Your task to perform on an android device: snooze an email in the gmail app Image 0: 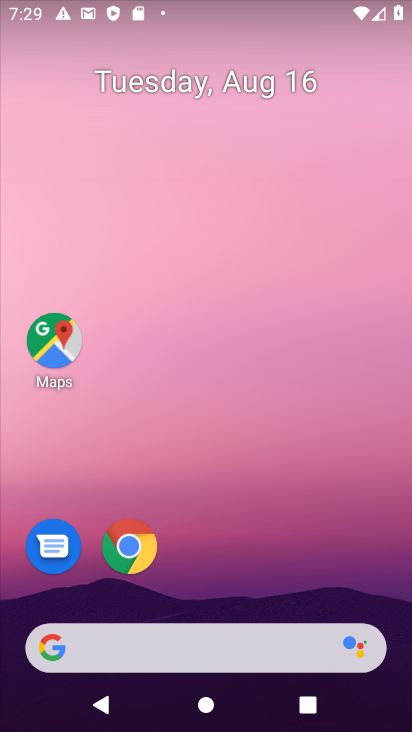
Step 0: drag from (248, 548) to (241, 0)
Your task to perform on an android device: snooze an email in the gmail app Image 1: 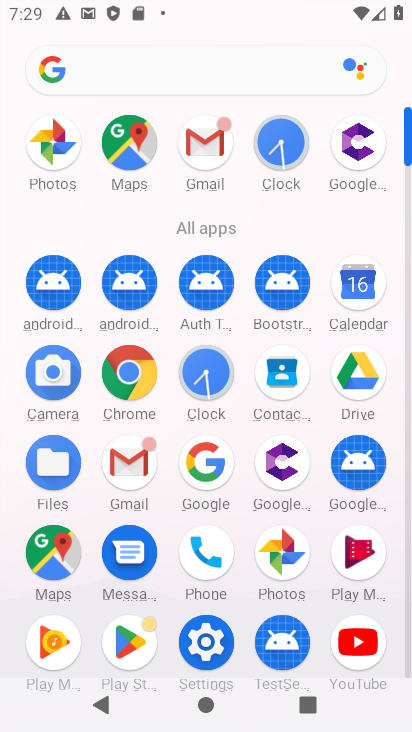
Step 1: click (206, 144)
Your task to perform on an android device: snooze an email in the gmail app Image 2: 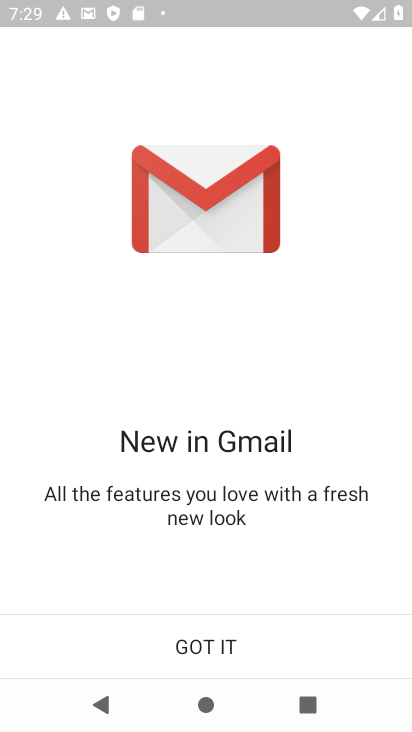
Step 2: click (256, 639)
Your task to perform on an android device: snooze an email in the gmail app Image 3: 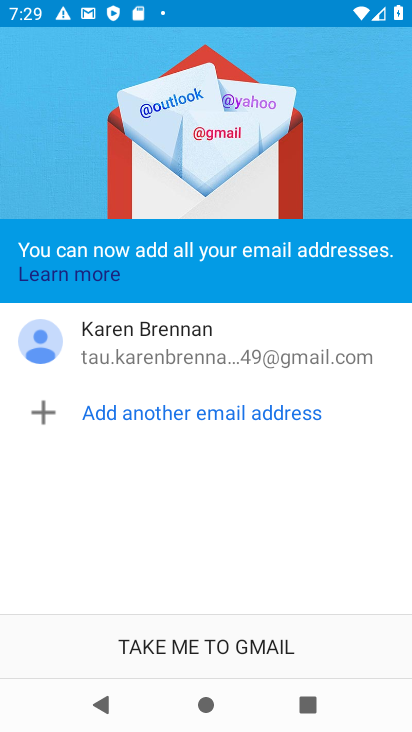
Step 3: click (256, 640)
Your task to perform on an android device: snooze an email in the gmail app Image 4: 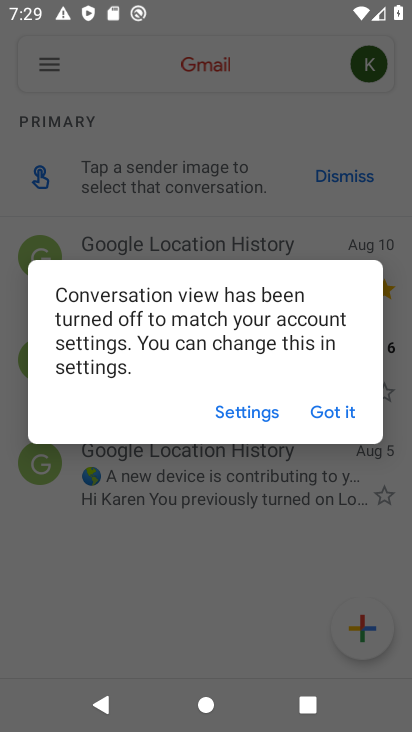
Step 4: click (340, 410)
Your task to perform on an android device: snooze an email in the gmail app Image 5: 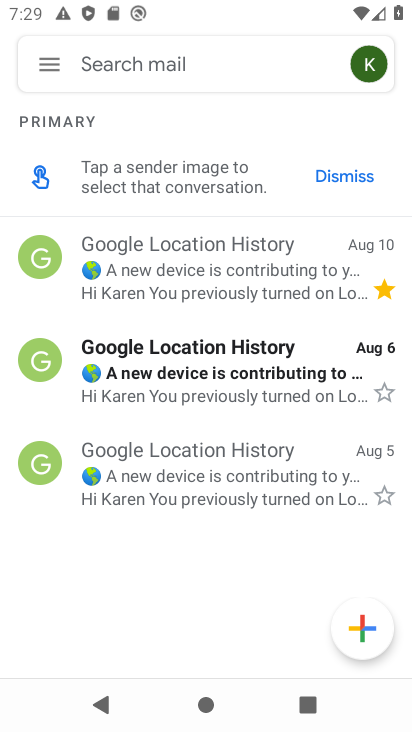
Step 5: click (236, 264)
Your task to perform on an android device: snooze an email in the gmail app Image 6: 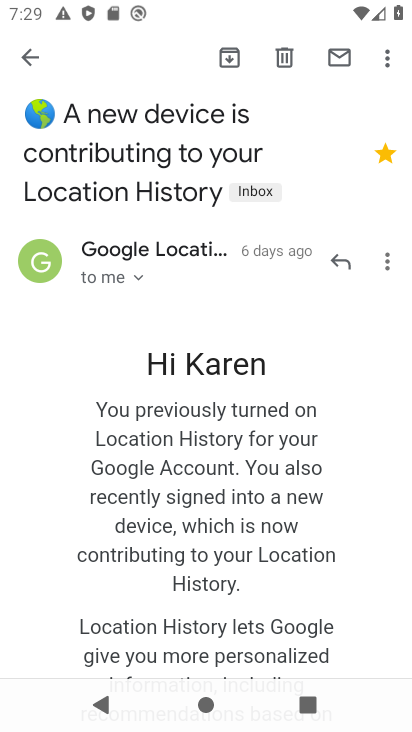
Step 6: click (383, 54)
Your task to perform on an android device: snooze an email in the gmail app Image 7: 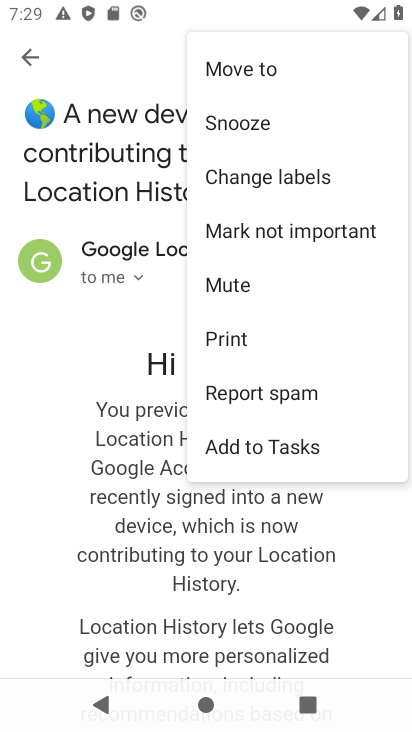
Step 7: click (293, 117)
Your task to perform on an android device: snooze an email in the gmail app Image 8: 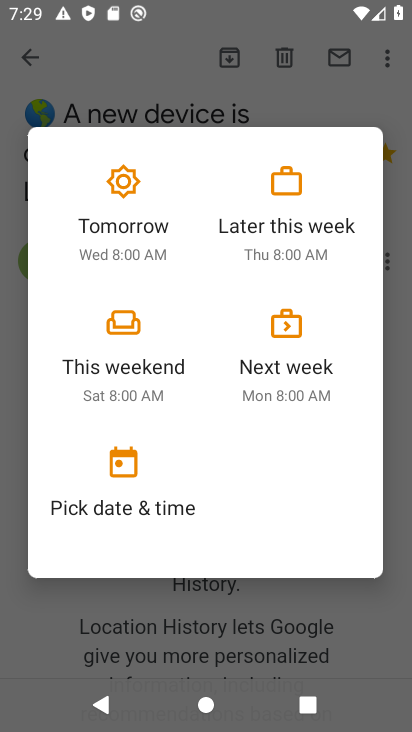
Step 8: click (115, 218)
Your task to perform on an android device: snooze an email in the gmail app Image 9: 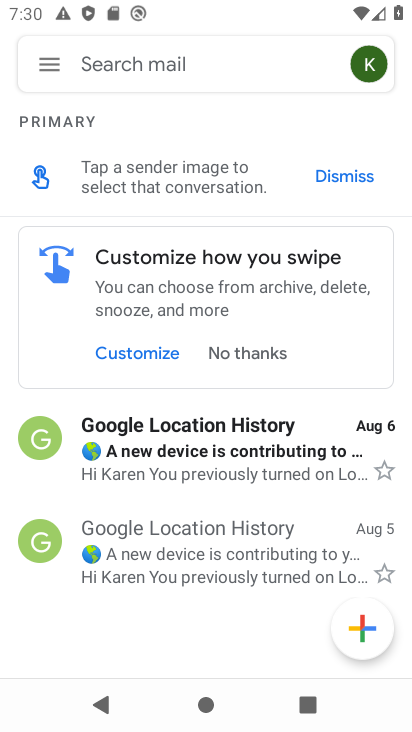
Step 9: task complete